Your task to perform on an android device: Show me popular games on the Play Store Image 0: 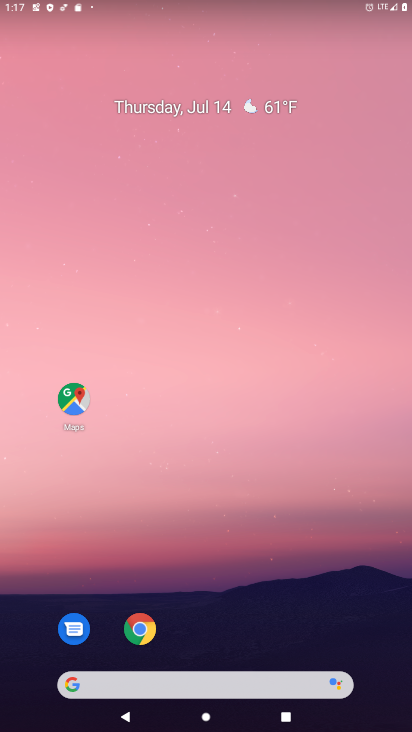
Step 0: drag from (250, 565) to (233, 143)
Your task to perform on an android device: Show me popular games on the Play Store Image 1: 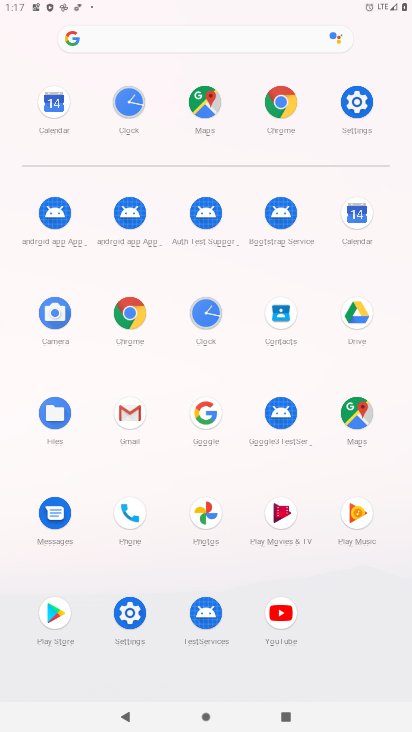
Step 1: click (47, 610)
Your task to perform on an android device: Show me popular games on the Play Store Image 2: 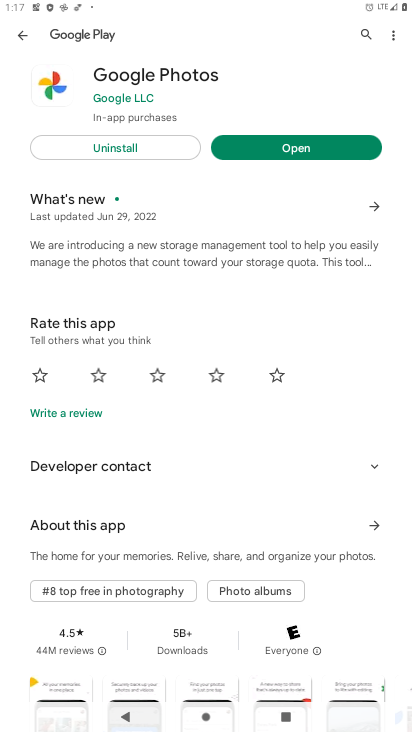
Step 2: click (17, 30)
Your task to perform on an android device: Show me popular games on the Play Store Image 3: 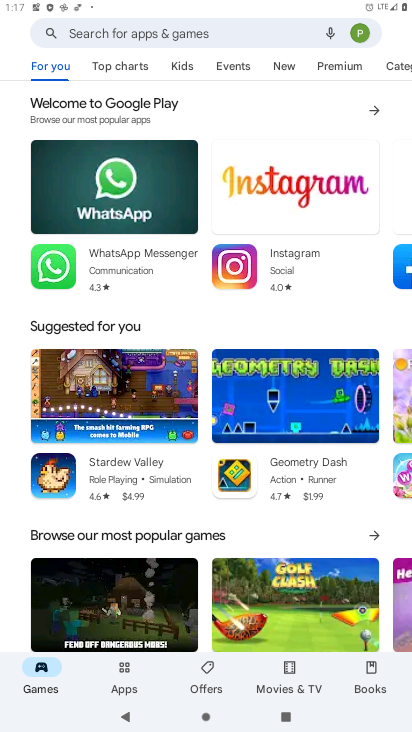
Step 3: task complete